Your task to perform on an android device: Play the last video I watched on Youtube Image 0: 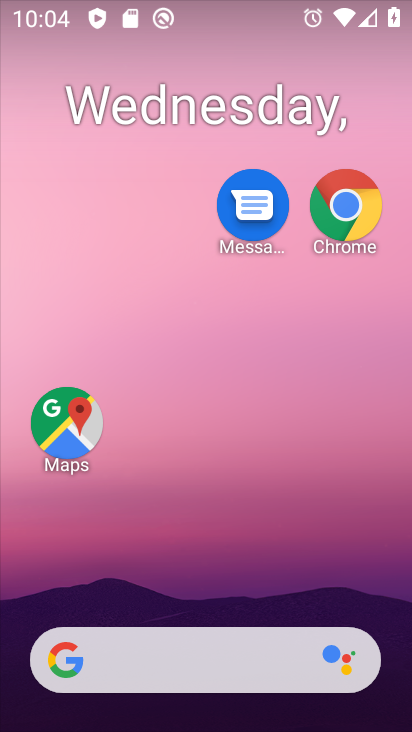
Step 0: drag from (208, 572) to (208, 44)
Your task to perform on an android device: Play the last video I watched on Youtube Image 1: 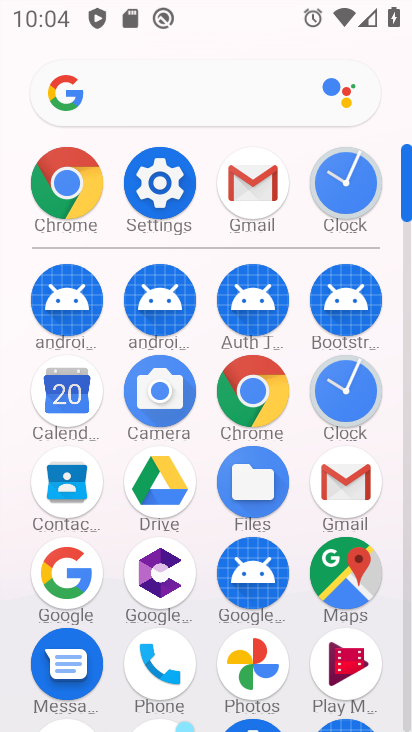
Step 1: drag from (201, 693) to (218, 150)
Your task to perform on an android device: Play the last video I watched on Youtube Image 2: 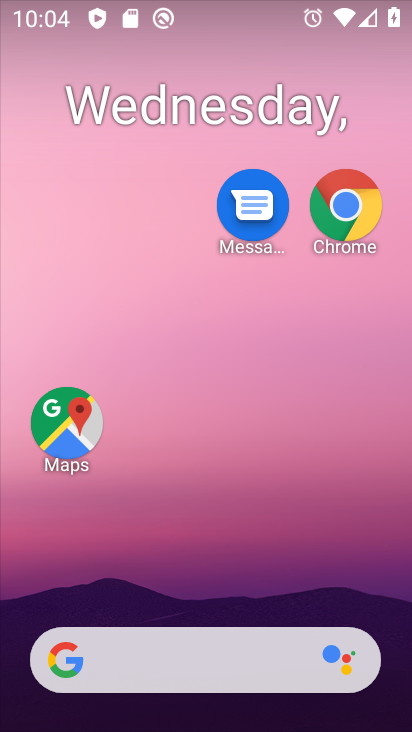
Step 2: drag from (242, 565) to (238, 5)
Your task to perform on an android device: Play the last video I watched on Youtube Image 3: 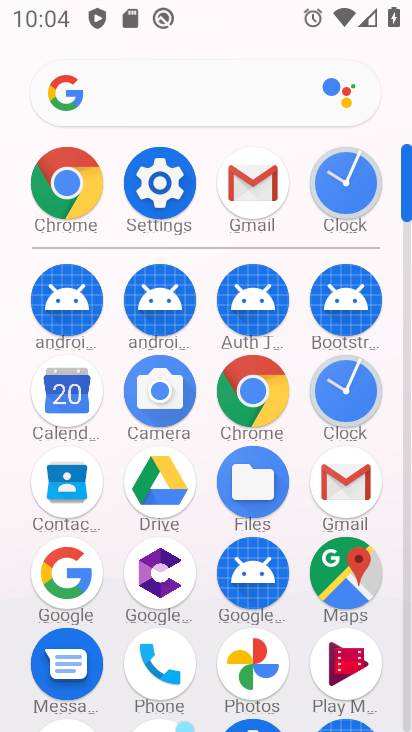
Step 3: drag from (208, 645) to (224, 245)
Your task to perform on an android device: Play the last video I watched on Youtube Image 4: 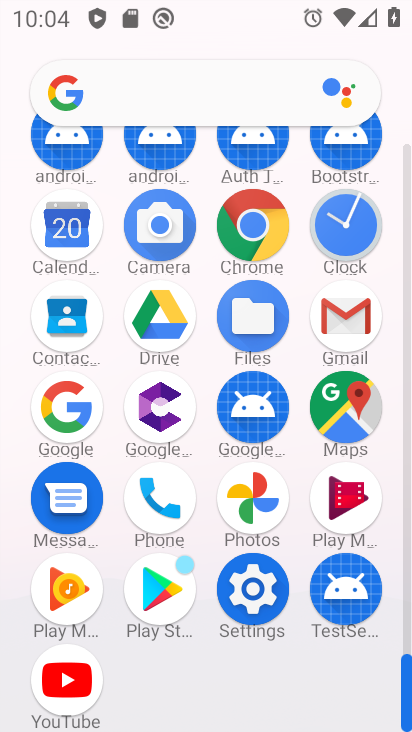
Step 4: click (55, 690)
Your task to perform on an android device: Play the last video I watched on Youtube Image 5: 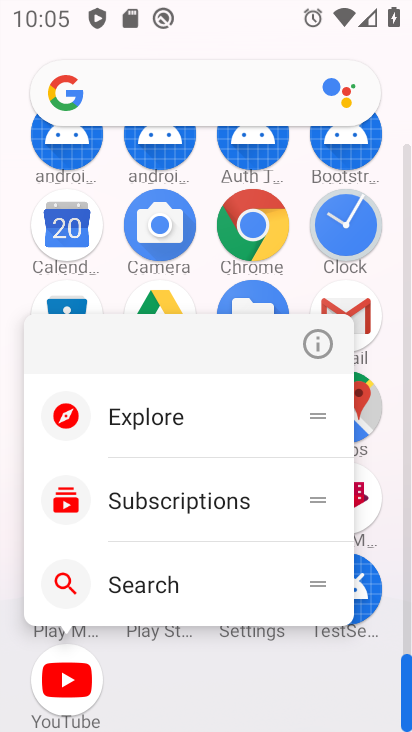
Step 5: click (316, 331)
Your task to perform on an android device: Play the last video I watched on Youtube Image 6: 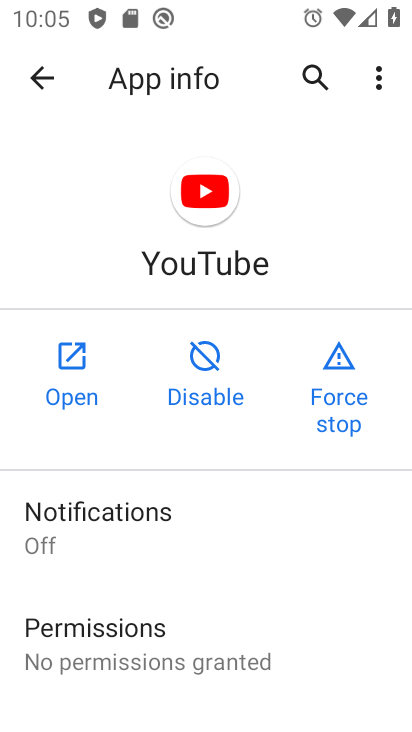
Step 6: click (70, 360)
Your task to perform on an android device: Play the last video I watched on Youtube Image 7: 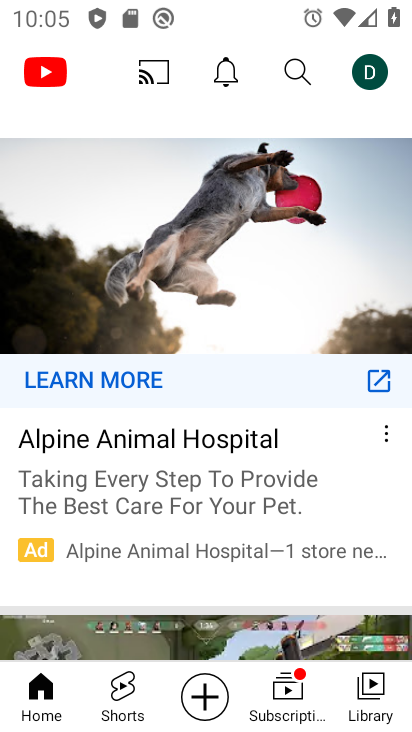
Step 7: click (375, 677)
Your task to perform on an android device: Play the last video I watched on Youtube Image 8: 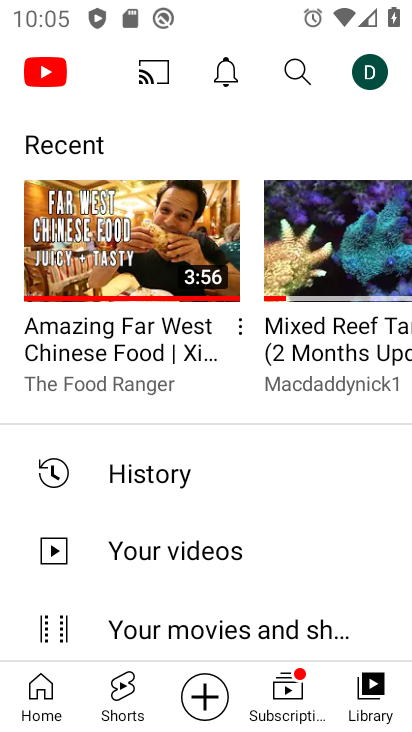
Step 8: click (151, 267)
Your task to perform on an android device: Play the last video I watched on Youtube Image 9: 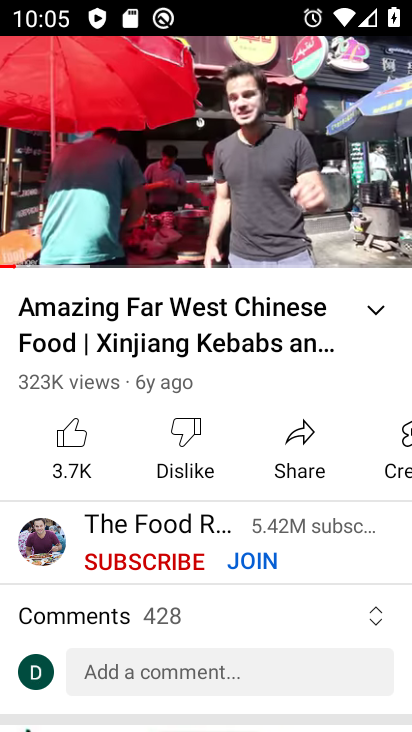
Step 9: task complete